Your task to perform on an android device: Turn on the flashlight Image 0: 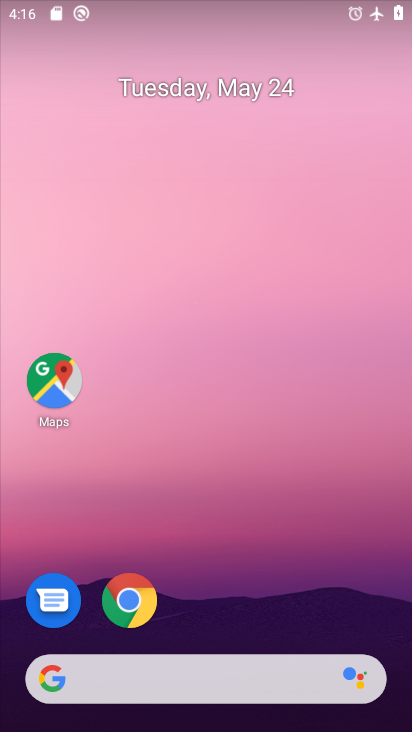
Step 0: drag from (245, 665) to (250, 58)
Your task to perform on an android device: Turn on the flashlight Image 1: 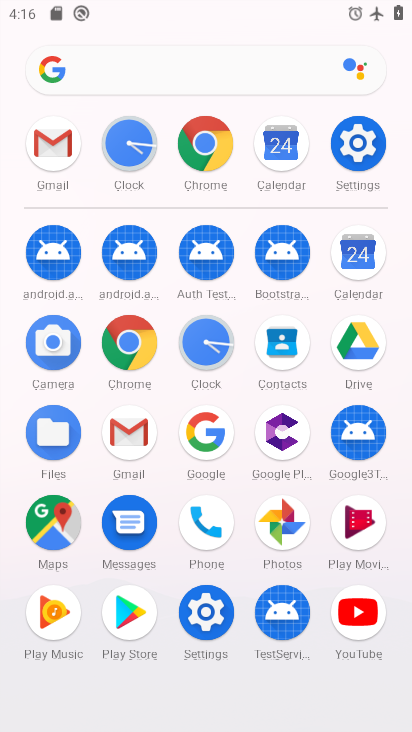
Step 1: click (364, 159)
Your task to perform on an android device: Turn on the flashlight Image 2: 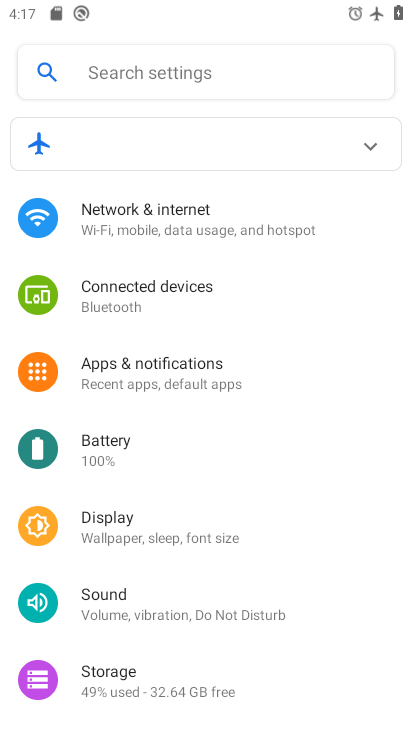
Step 2: task complete